Your task to perform on an android device: turn pop-ups on in chrome Image 0: 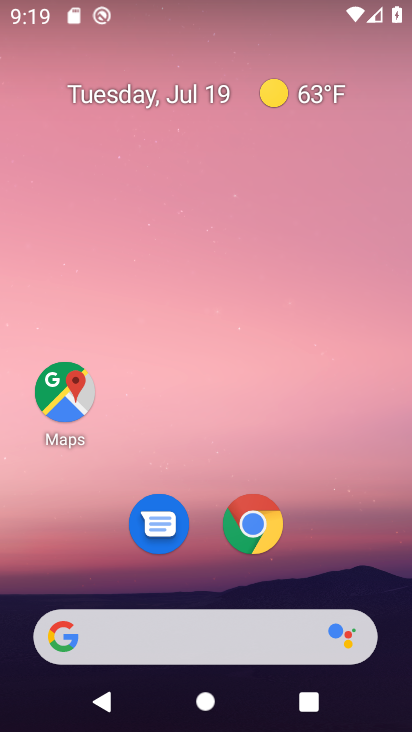
Step 0: press home button
Your task to perform on an android device: turn pop-ups on in chrome Image 1: 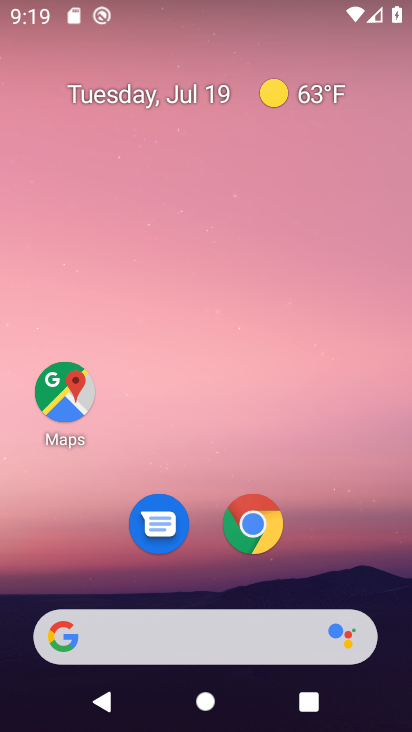
Step 1: click (263, 531)
Your task to perform on an android device: turn pop-ups on in chrome Image 2: 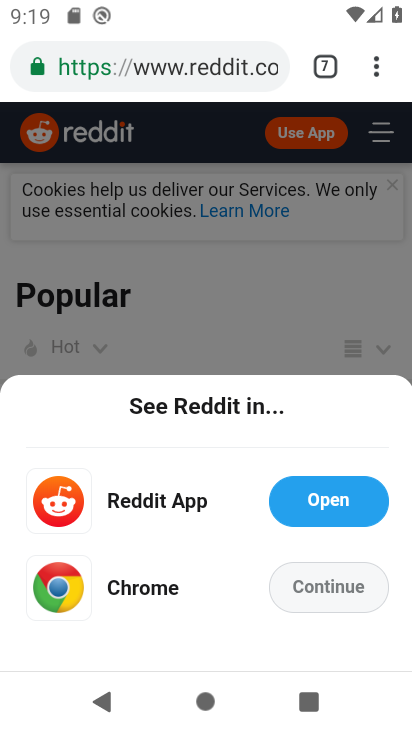
Step 2: drag from (378, 62) to (201, 538)
Your task to perform on an android device: turn pop-ups on in chrome Image 3: 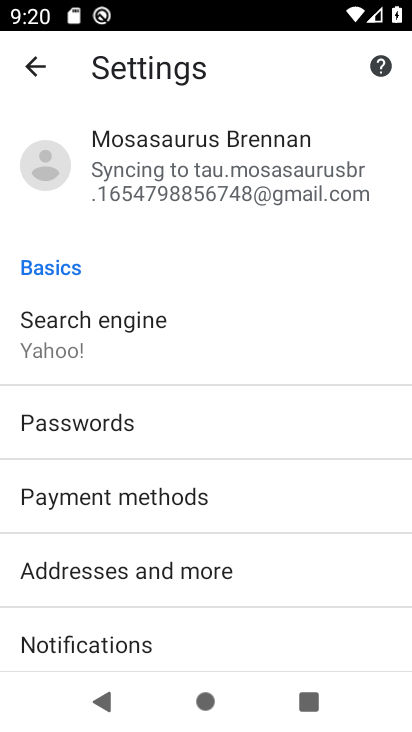
Step 3: drag from (120, 582) to (309, 106)
Your task to perform on an android device: turn pop-ups on in chrome Image 4: 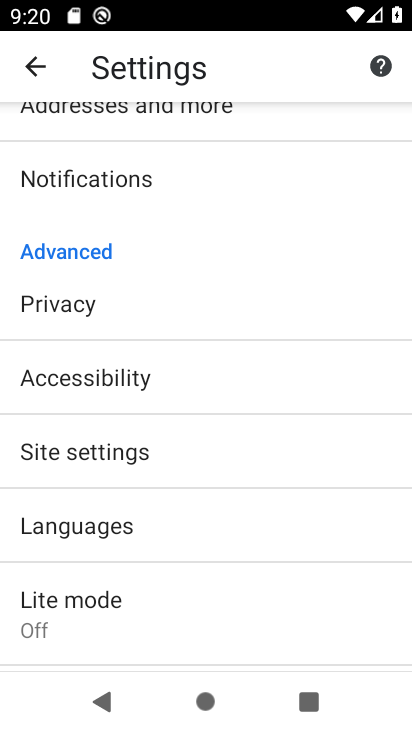
Step 4: click (103, 454)
Your task to perform on an android device: turn pop-ups on in chrome Image 5: 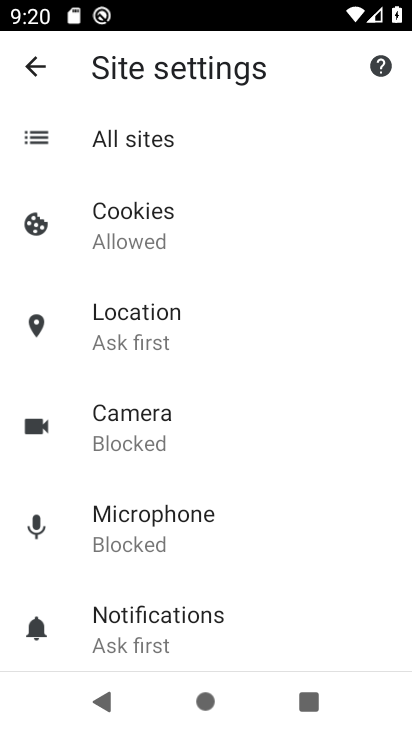
Step 5: drag from (246, 572) to (337, 250)
Your task to perform on an android device: turn pop-ups on in chrome Image 6: 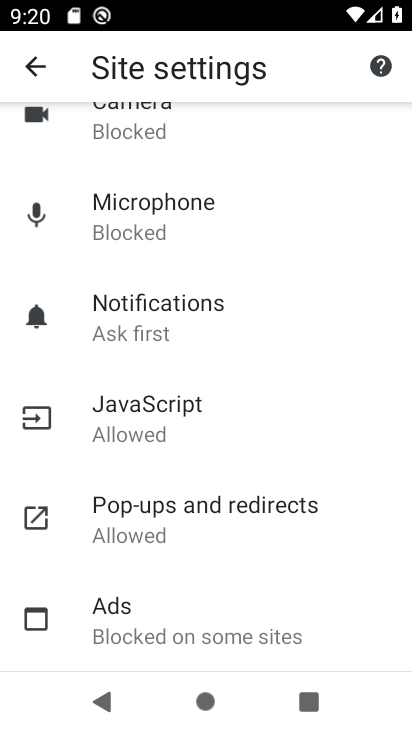
Step 6: click (156, 509)
Your task to perform on an android device: turn pop-ups on in chrome Image 7: 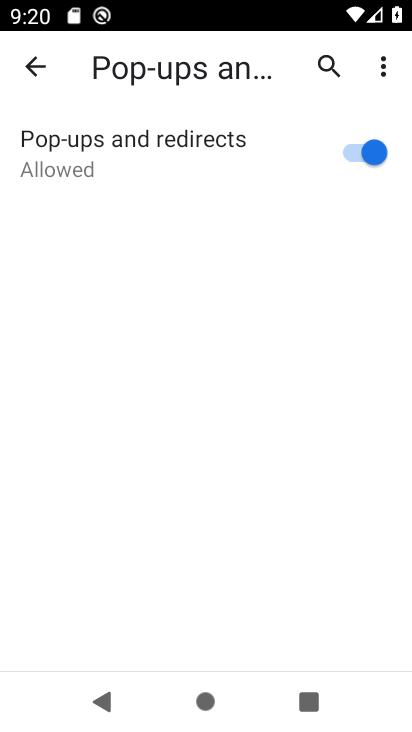
Step 7: task complete